Your task to perform on an android device: turn off airplane mode Image 0: 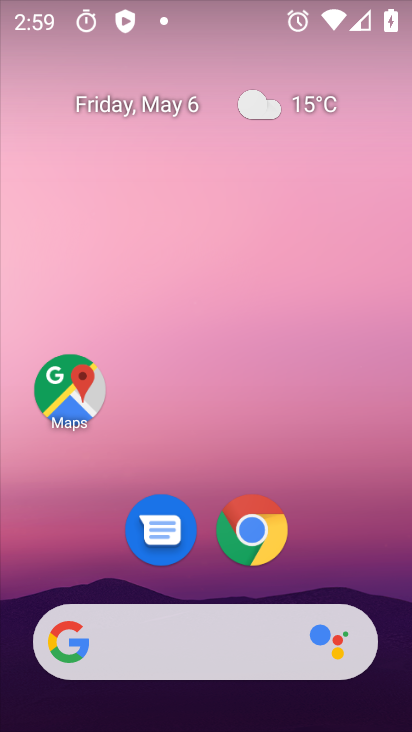
Step 0: drag from (373, 561) to (390, 154)
Your task to perform on an android device: turn off airplane mode Image 1: 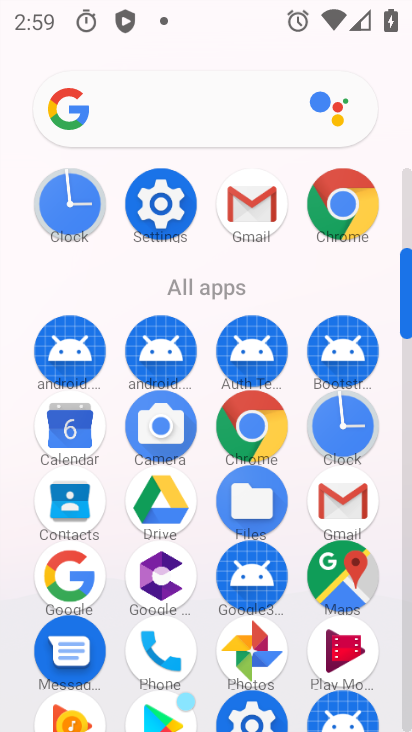
Step 1: click (187, 228)
Your task to perform on an android device: turn off airplane mode Image 2: 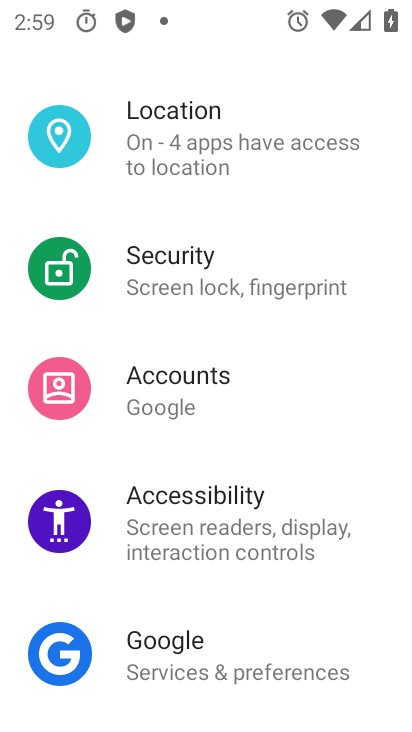
Step 2: drag from (134, 226) to (142, 594)
Your task to perform on an android device: turn off airplane mode Image 3: 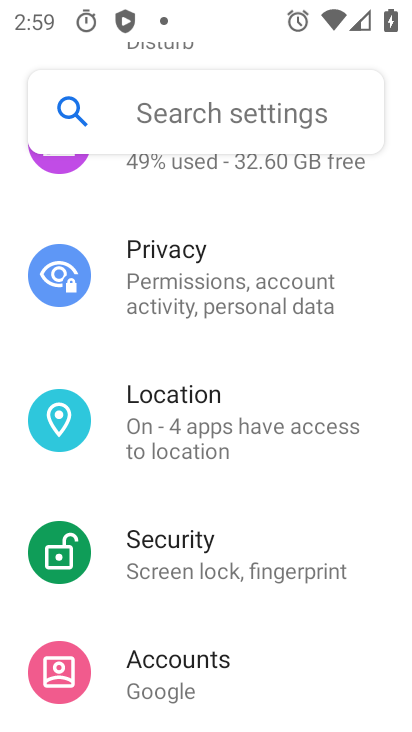
Step 3: drag from (127, 327) to (112, 676)
Your task to perform on an android device: turn off airplane mode Image 4: 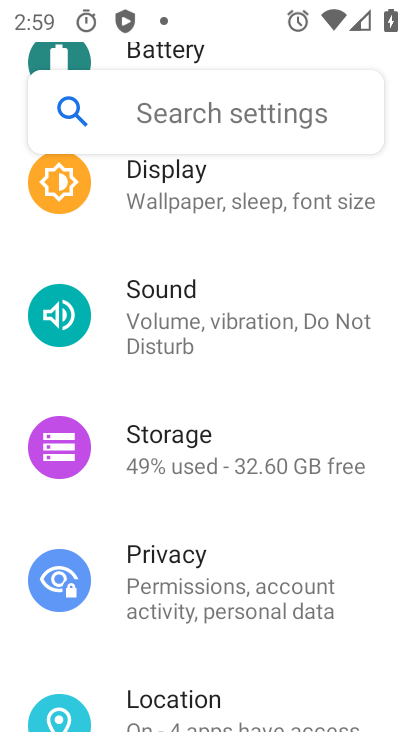
Step 4: drag from (147, 299) to (147, 672)
Your task to perform on an android device: turn off airplane mode Image 5: 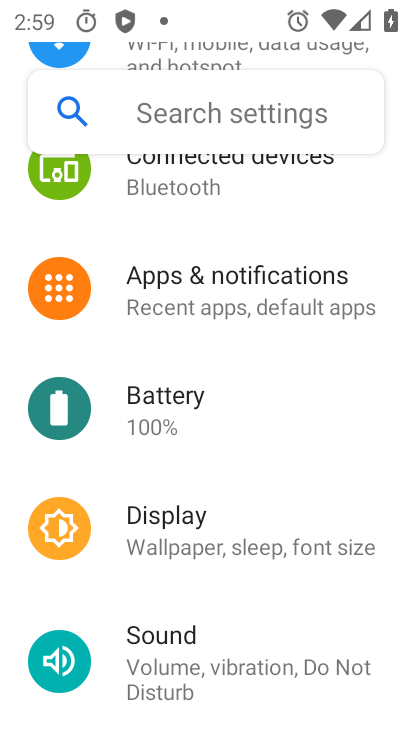
Step 5: drag from (171, 269) to (174, 665)
Your task to perform on an android device: turn off airplane mode Image 6: 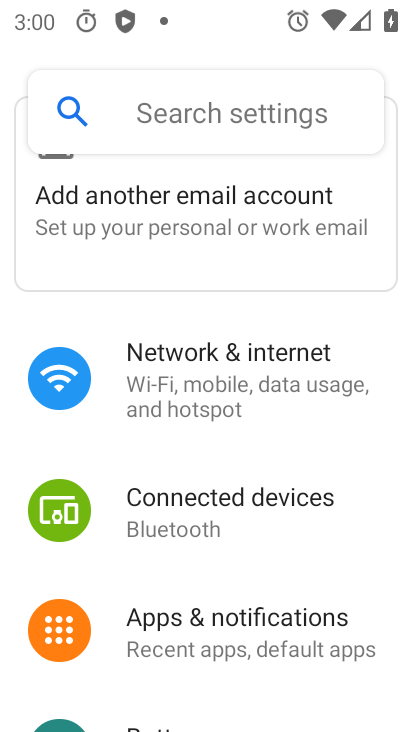
Step 6: click (185, 372)
Your task to perform on an android device: turn off airplane mode Image 7: 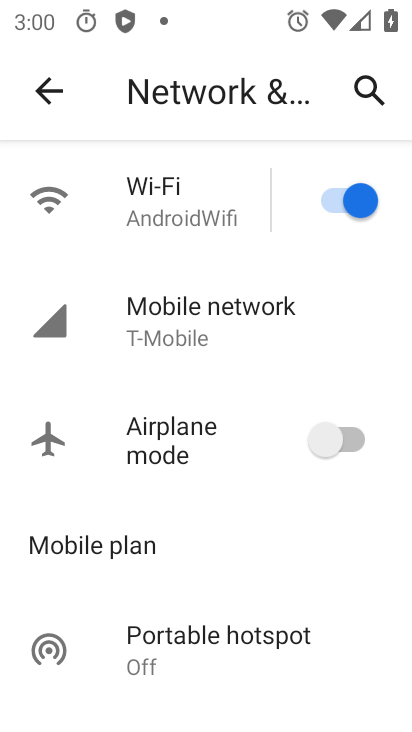
Step 7: task complete